Your task to perform on an android device: change notification settings in the gmail app Image 0: 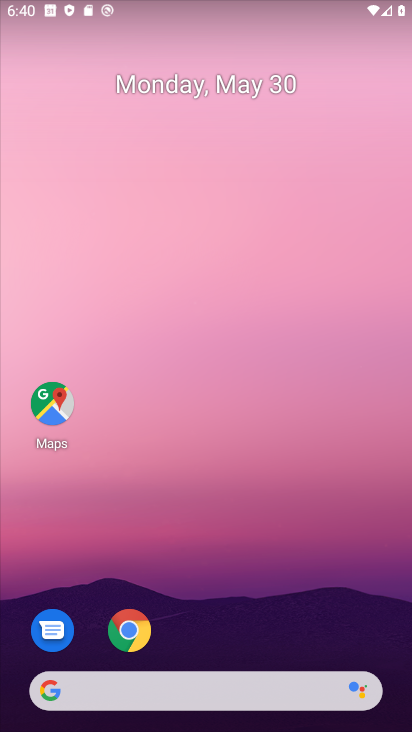
Step 0: drag from (378, 626) to (263, 0)
Your task to perform on an android device: change notification settings in the gmail app Image 1: 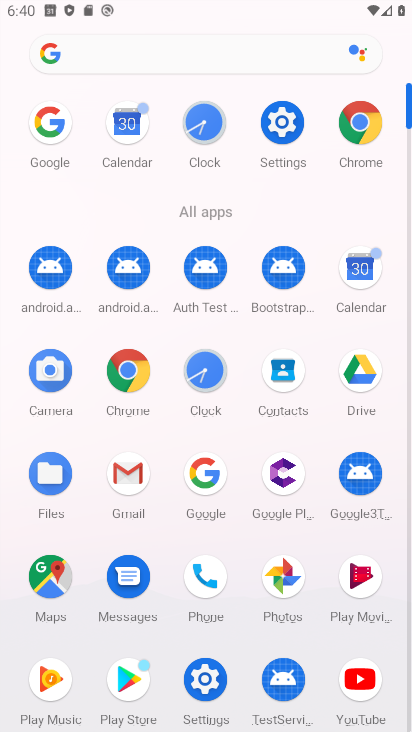
Step 1: click (128, 483)
Your task to perform on an android device: change notification settings in the gmail app Image 2: 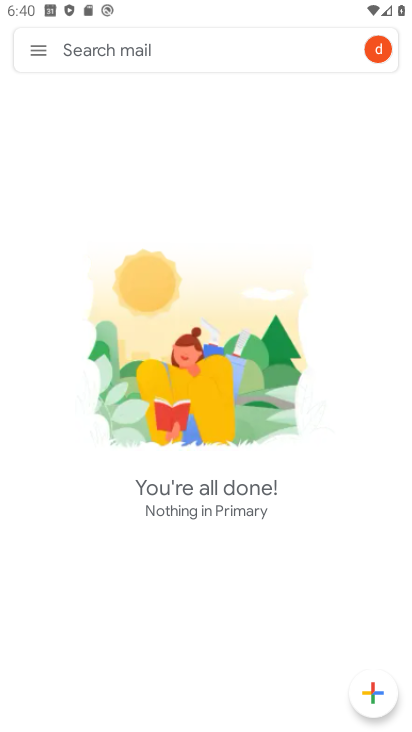
Step 2: click (32, 51)
Your task to perform on an android device: change notification settings in the gmail app Image 3: 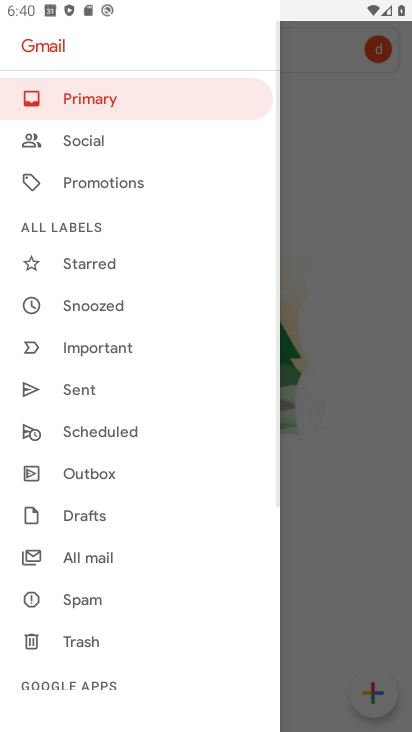
Step 3: drag from (93, 634) to (132, 47)
Your task to perform on an android device: change notification settings in the gmail app Image 4: 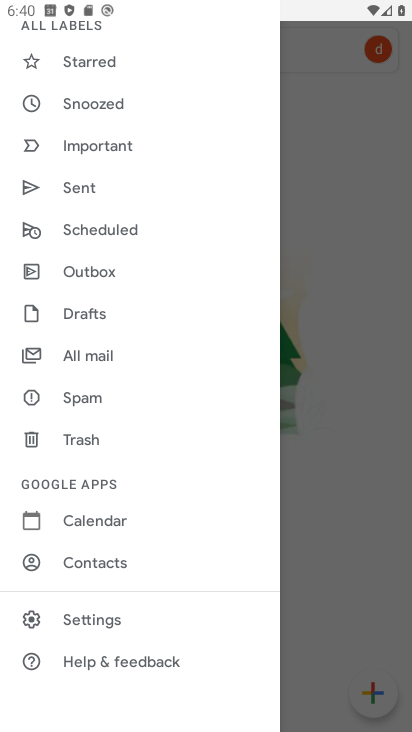
Step 4: click (86, 626)
Your task to perform on an android device: change notification settings in the gmail app Image 5: 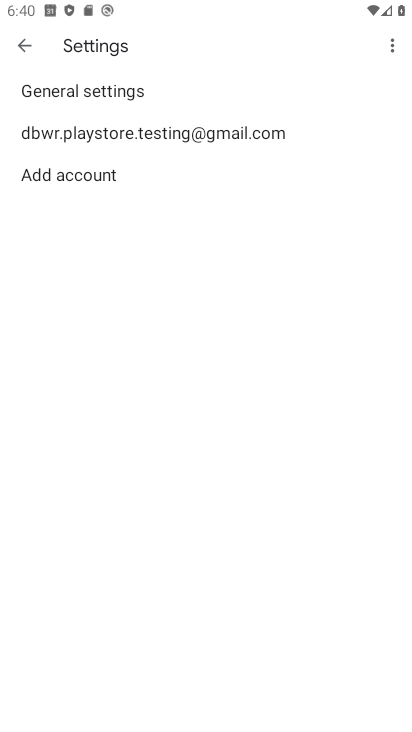
Step 5: click (138, 134)
Your task to perform on an android device: change notification settings in the gmail app Image 6: 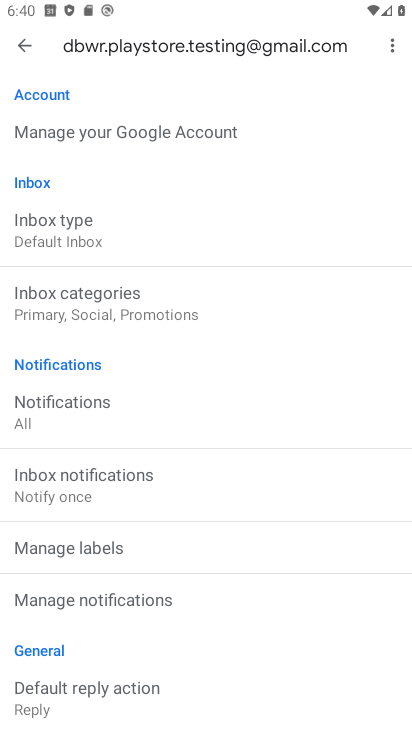
Step 6: click (119, 419)
Your task to perform on an android device: change notification settings in the gmail app Image 7: 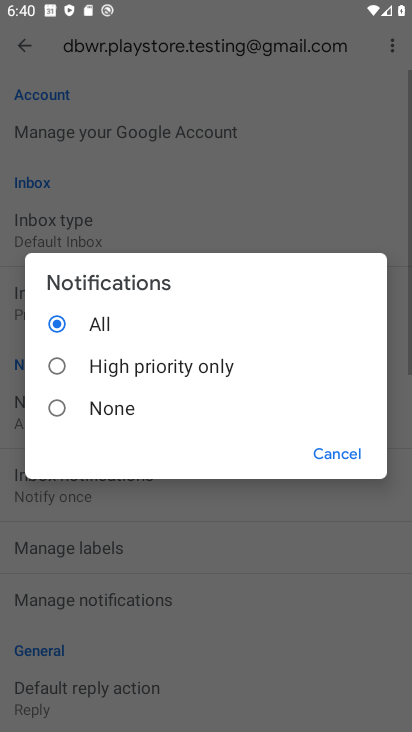
Step 7: click (71, 408)
Your task to perform on an android device: change notification settings in the gmail app Image 8: 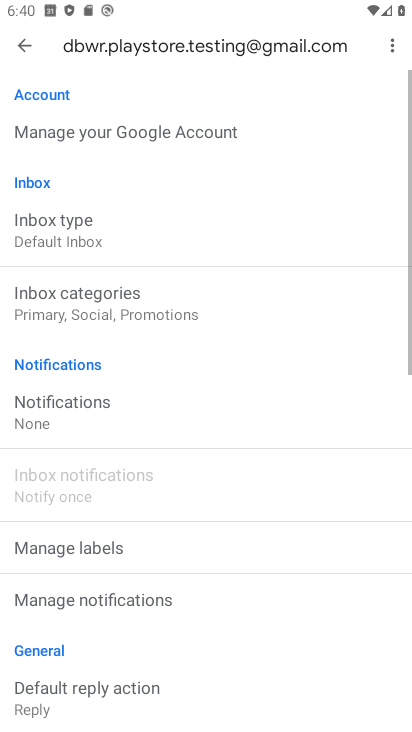
Step 8: task complete